Your task to perform on an android device: Is it going to rain today? Image 0: 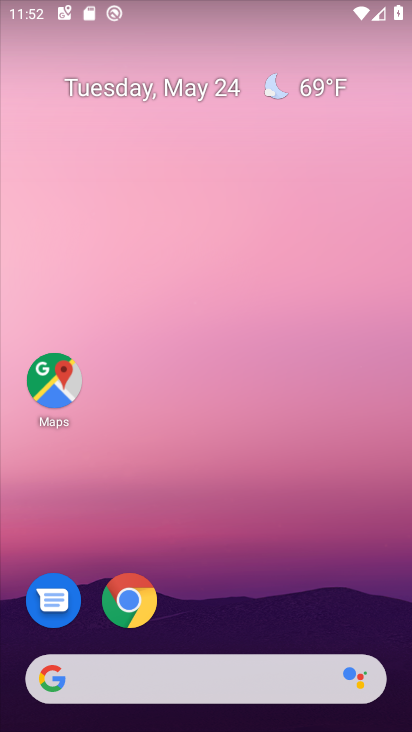
Step 0: click (275, 684)
Your task to perform on an android device: Is it going to rain today? Image 1: 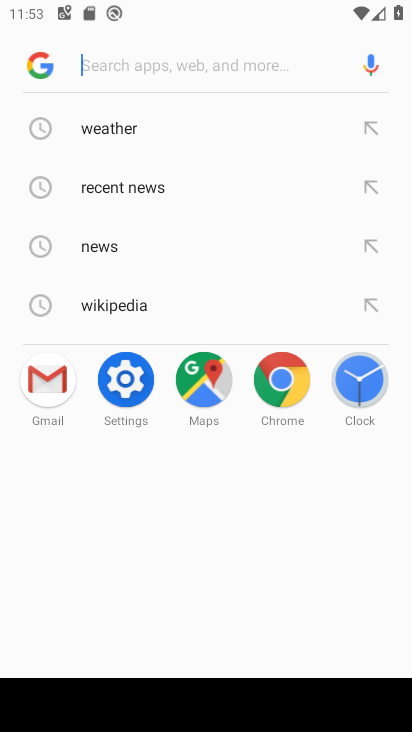
Step 1: click (201, 128)
Your task to perform on an android device: Is it going to rain today? Image 2: 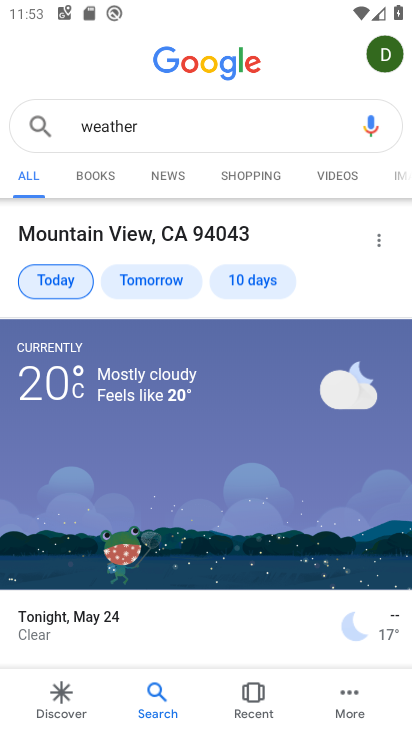
Step 2: task complete